Your task to perform on an android device: Is it going to rain tomorrow? Image 0: 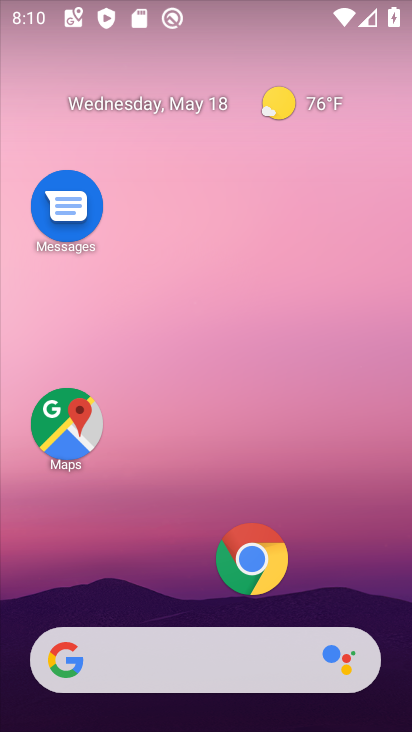
Step 0: click (215, 670)
Your task to perform on an android device: Is it going to rain tomorrow? Image 1: 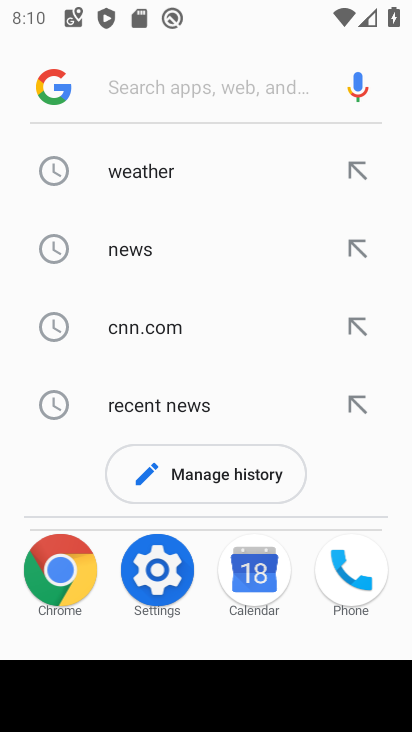
Step 1: click (153, 170)
Your task to perform on an android device: Is it going to rain tomorrow? Image 2: 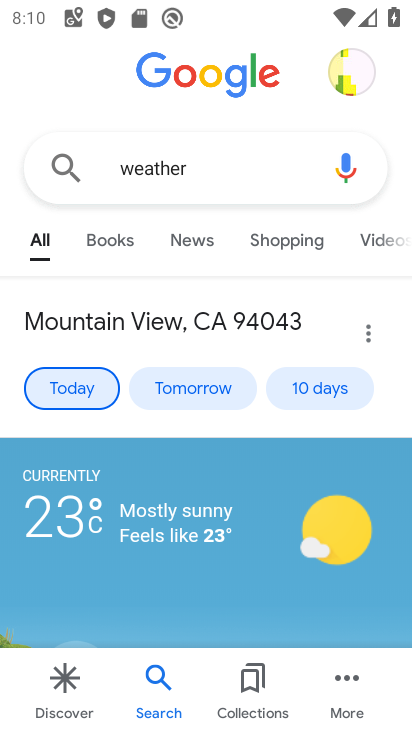
Step 2: click (192, 400)
Your task to perform on an android device: Is it going to rain tomorrow? Image 3: 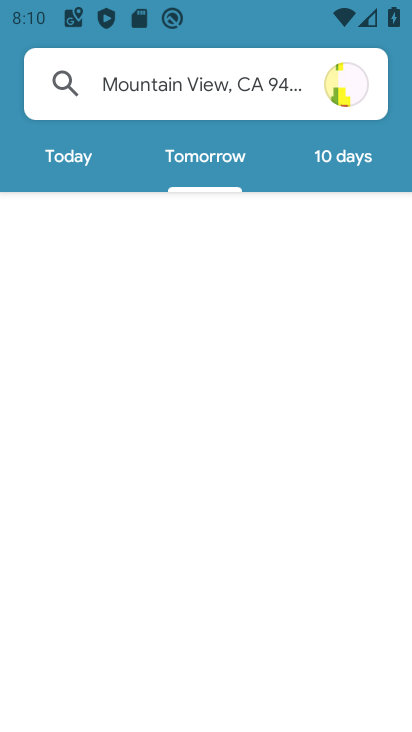
Step 3: task complete